Your task to perform on an android device: What is the recent news? Image 0: 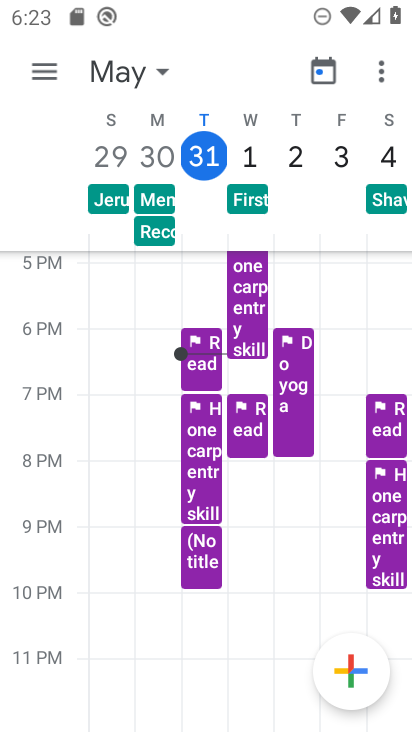
Step 0: press home button
Your task to perform on an android device: What is the recent news? Image 1: 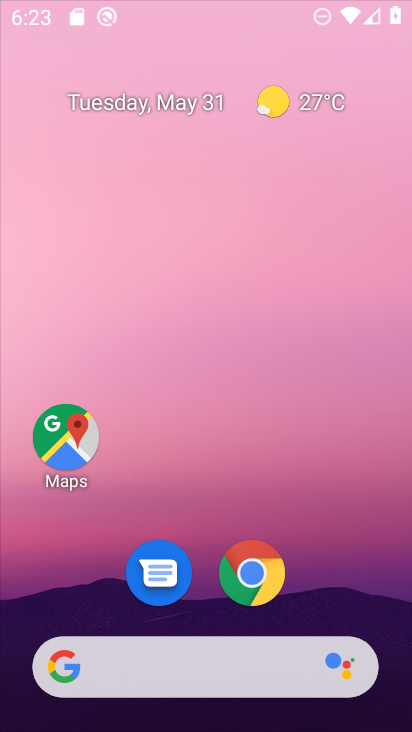
Step 1: drag from (407, 630) to (338, 17)
Your task to perform on an android device: What is the recent news? Image 2: 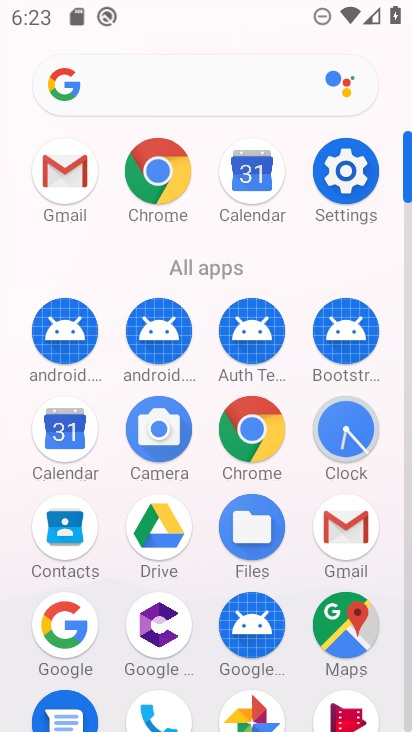
Step 2: click (50, 607)
Your task to perform on an android device: What is the recent news? Image 3: 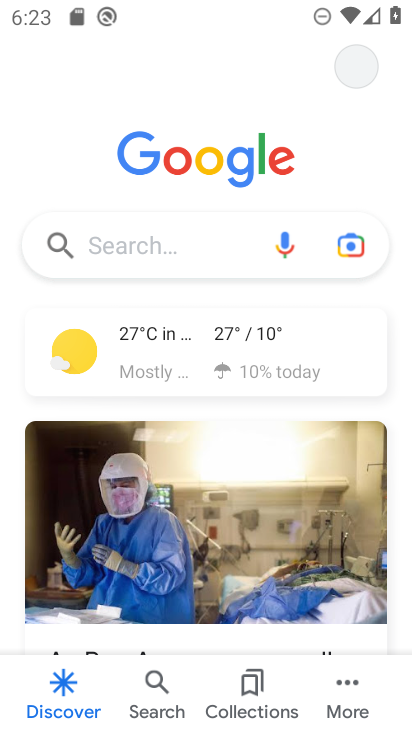
Step 3: click (140, 266)
Your task to perform on an android device: What is the recent news? Image 4: 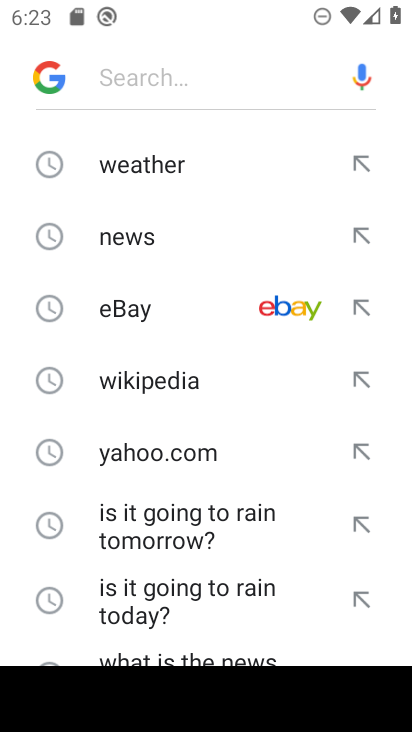
Step 4: drag from (194, 555) to (188, 76)
Your task to perform on an android device: What is the recent news? Image 5: 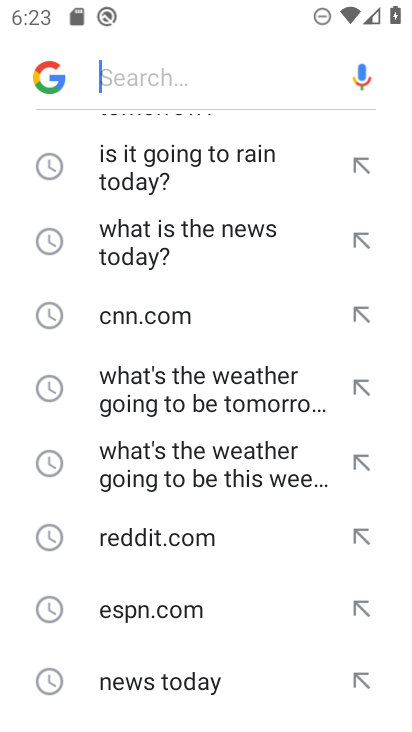
Step 5: drag from (138, 610) to (170, 152)
Your task to perform on an android device: What is the recent news? Image 6: 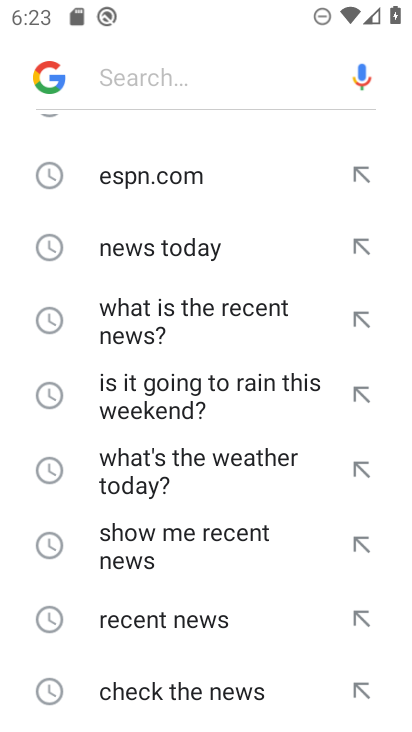
Step 6: click (152, 630)
Your task to perform on an android device: What is the recent news? Image 7: 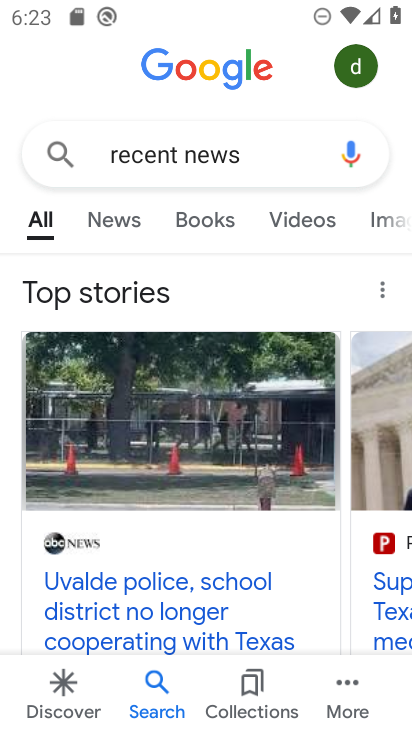
Step 7: task complete